Your task to perform on an android device: Open the downloads Image 0: 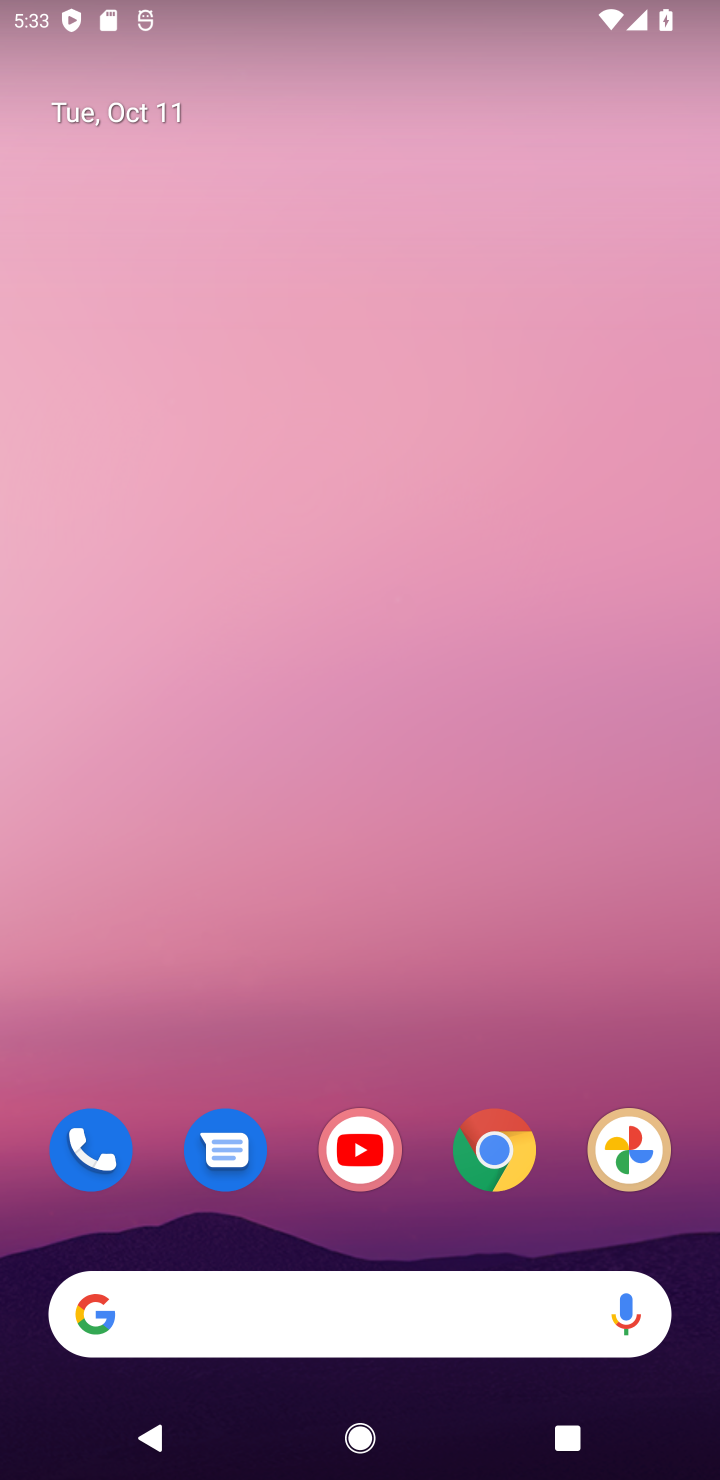
Step 0: drag from (438, 914) to (492, 85)
Your task to perform on an android device: Open the downloads Image 1: 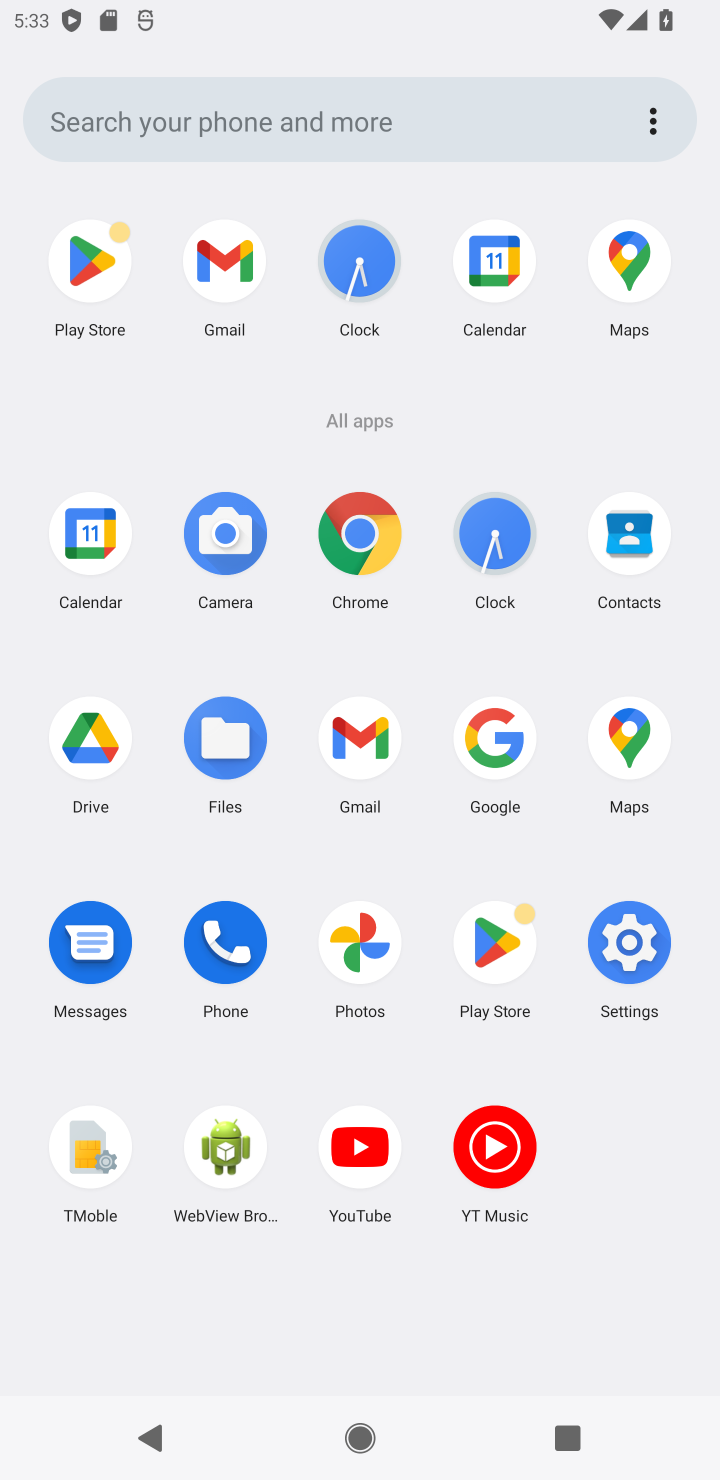
Step 1: click (212, 743)
Your task to perform on an android device: Open the downloads Image 2: 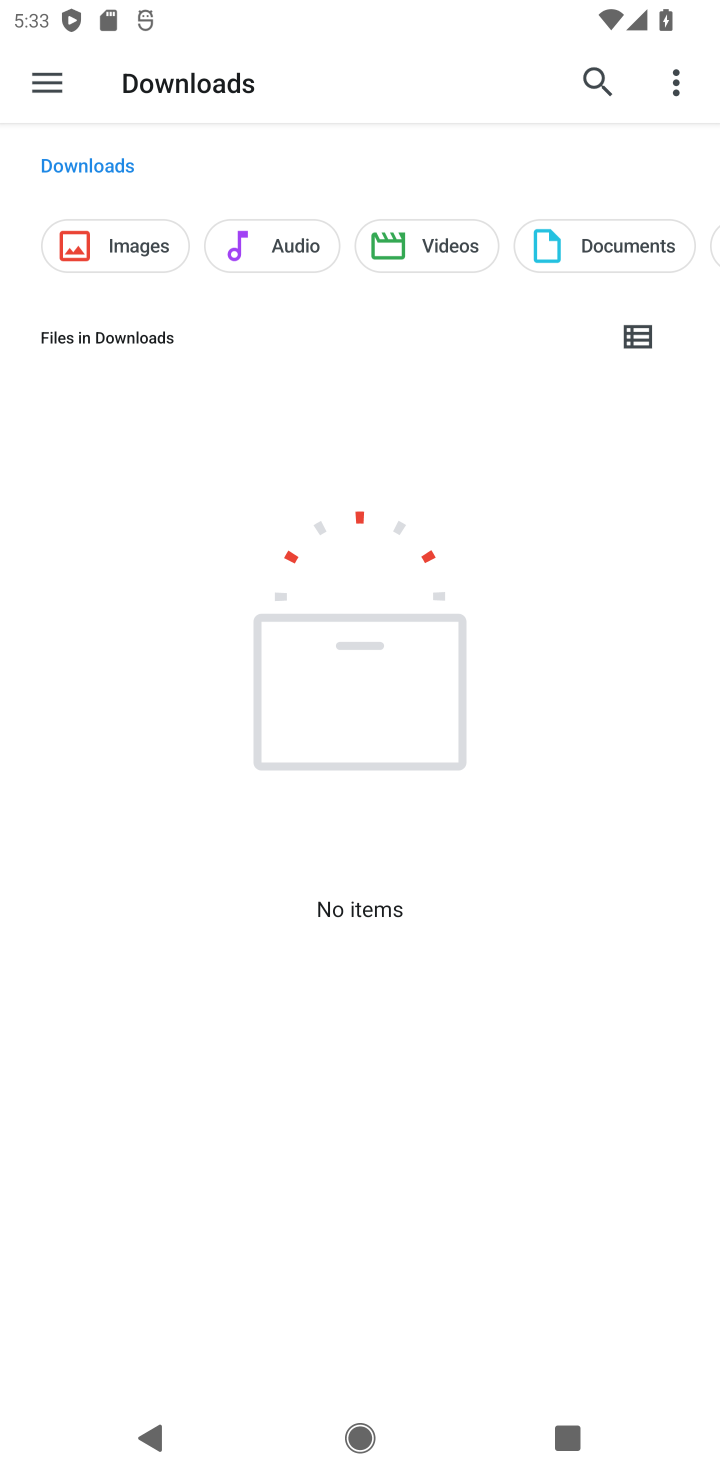
Step 2: task complete